Your task to perform on an android device: Open Chrome and go to the settings page Image 0: 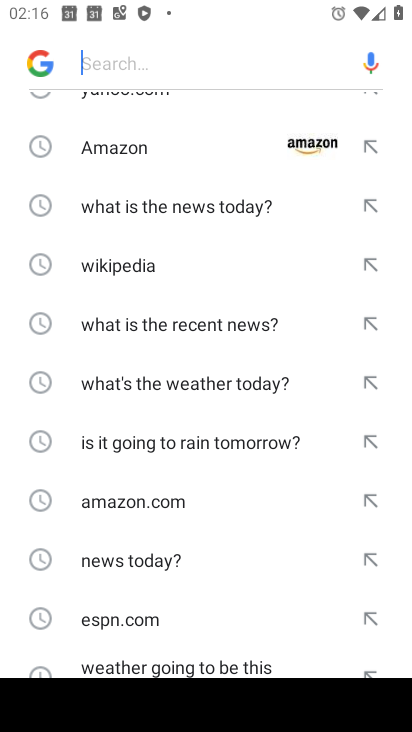
Step 0: press home button
Your task to perform on an android device: Open Chrome and go to the settings page Image 1: 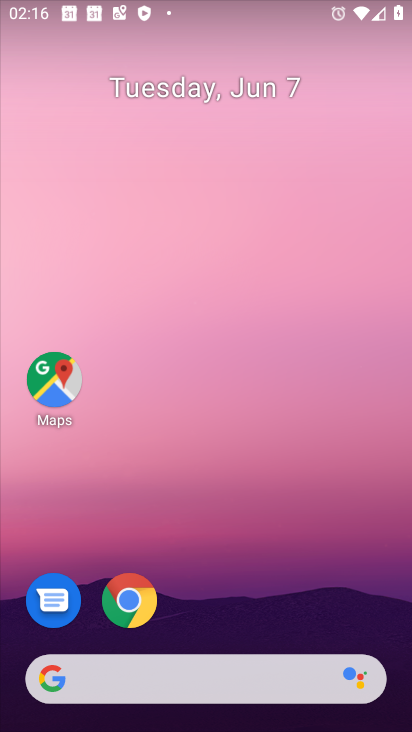
Step 1: click (134, 599)
Your task to perform on an android device: Open Chrome and go to the settings page Image 2: 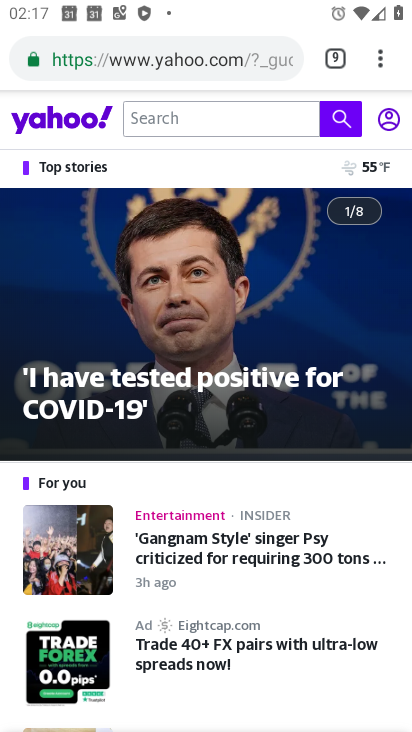
Step 2: click (383, 66)
Your task to perform on an android device: Open Chrome and go to the settings page Image 3: 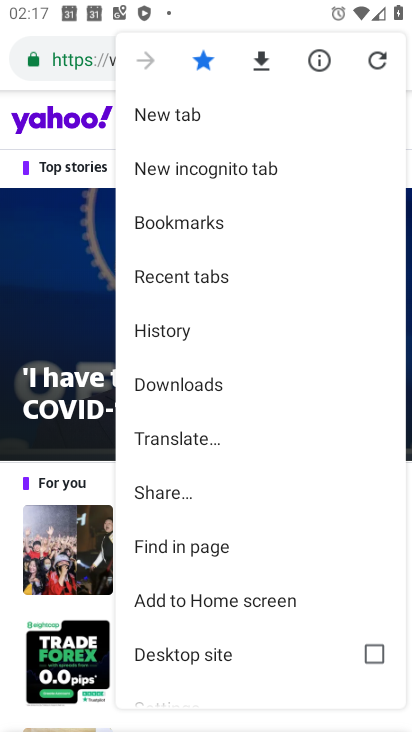
Step 3: drag from (216, 676) to (209, 301)
Your task to perform on an android device: Open Chrome and go to the settings page Image 4: 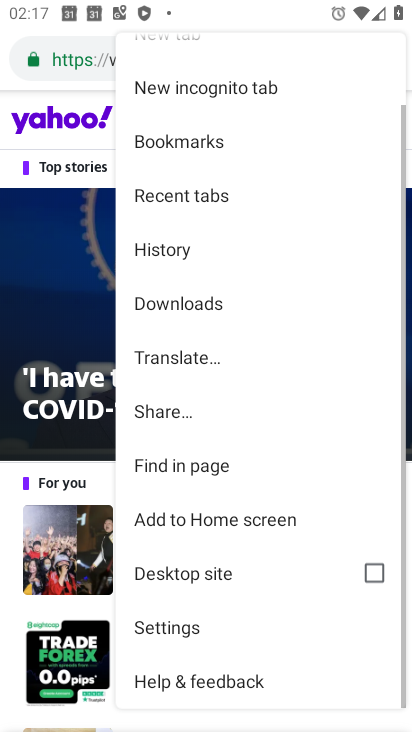
Step 4: click (188, 630)
Your task to perform on an android device: Open Chrome and go to the settings page Image 5: 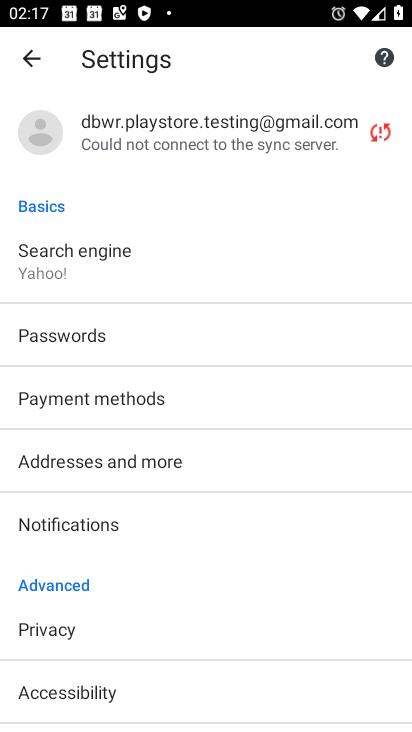
Step 5: task complete